Your task to perform on an android device: Open Google Maps Image 0: 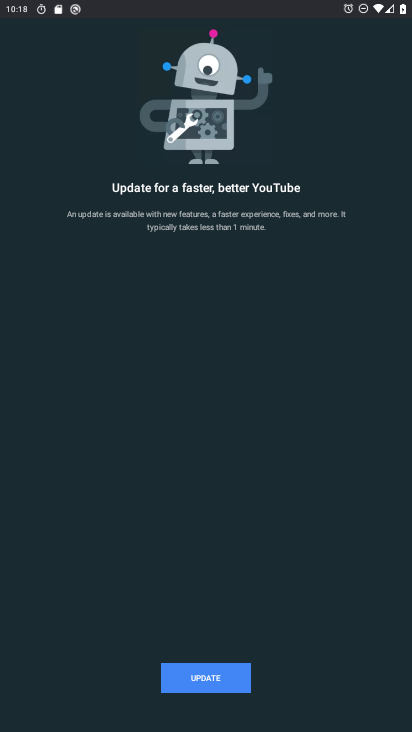
Step 0: press home button
Your task to perform on an android device: Open Google Maps Image 1: 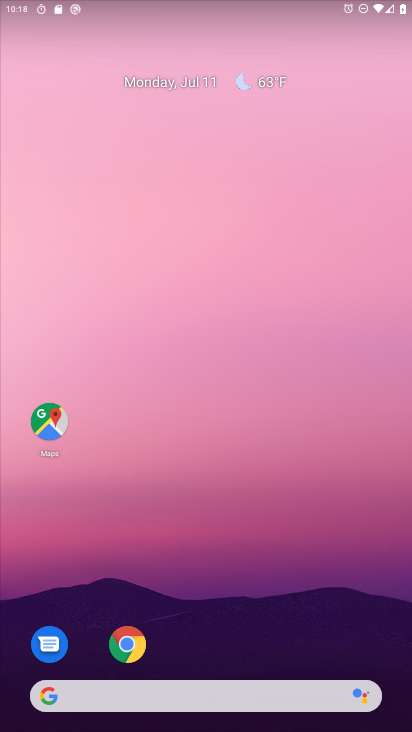
Step 1: click (51, 417)
Your task to perform on an android device: Open Google Maps Image 2: 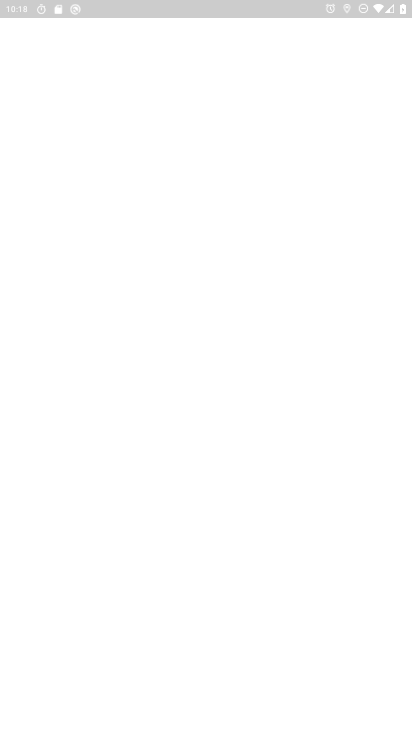
Step 2: task complete